Your task to perform on an android device: open app "Flipkart Online Shopping App" Image 0: 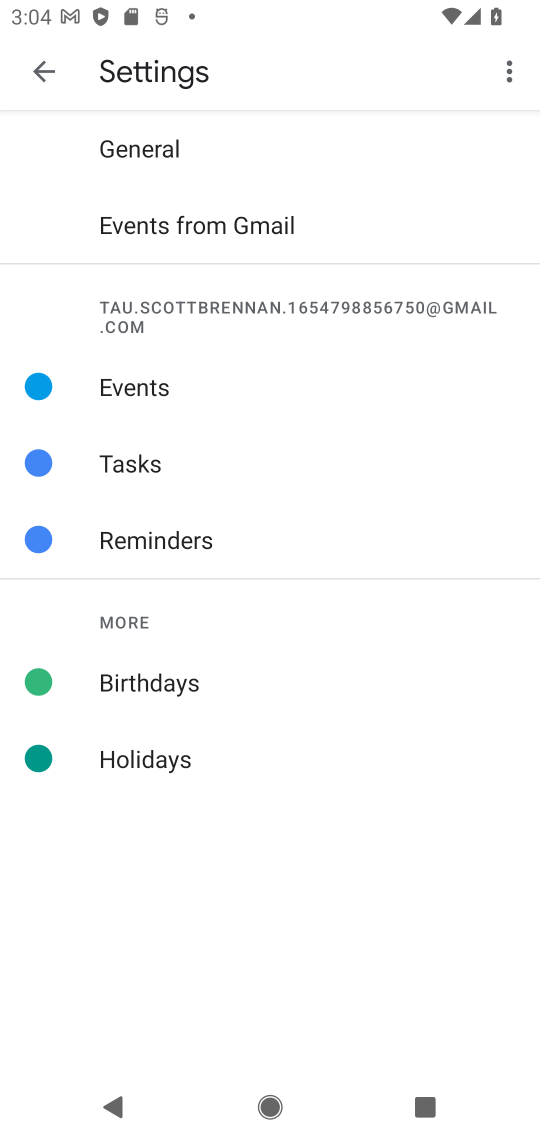
Step 0: press home button
Your task to perform on an android device: open app "Flipkart Online Shopping App" Image 1: 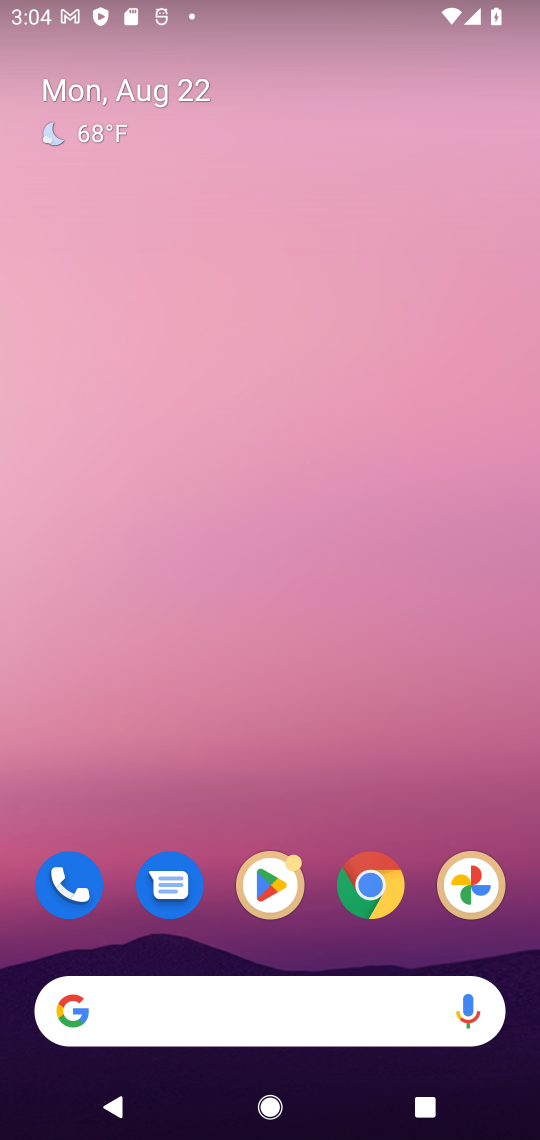
Step 1: click (265, 881)
Your task to perform on an android device: open app "Flipkart Online Shopping App" Image 2: 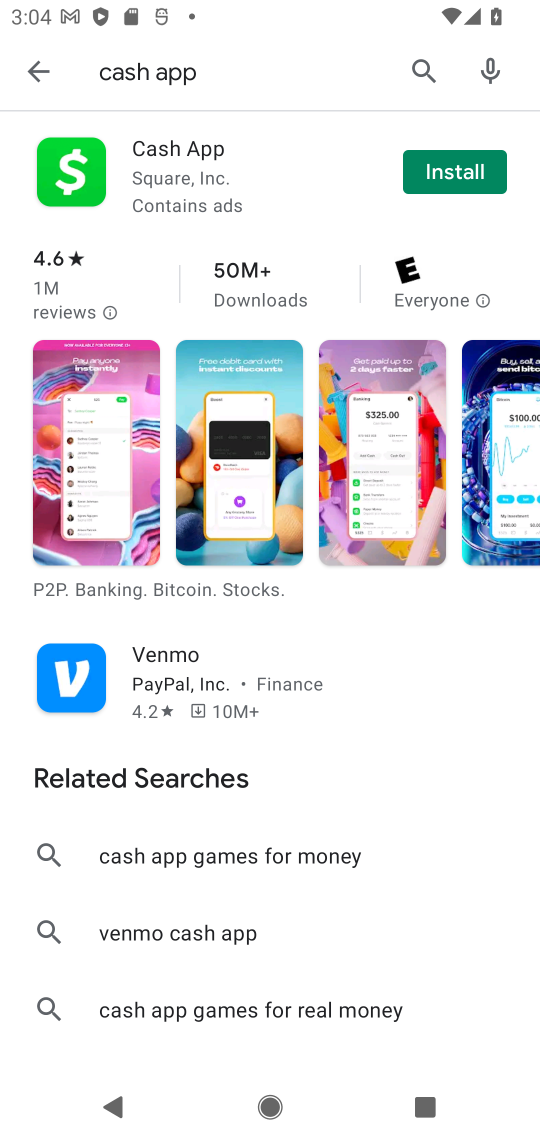
Step 2: click (418, 76)
Your task to perform on an android device: open app "Flipkart Online Shopping App" Image 3: 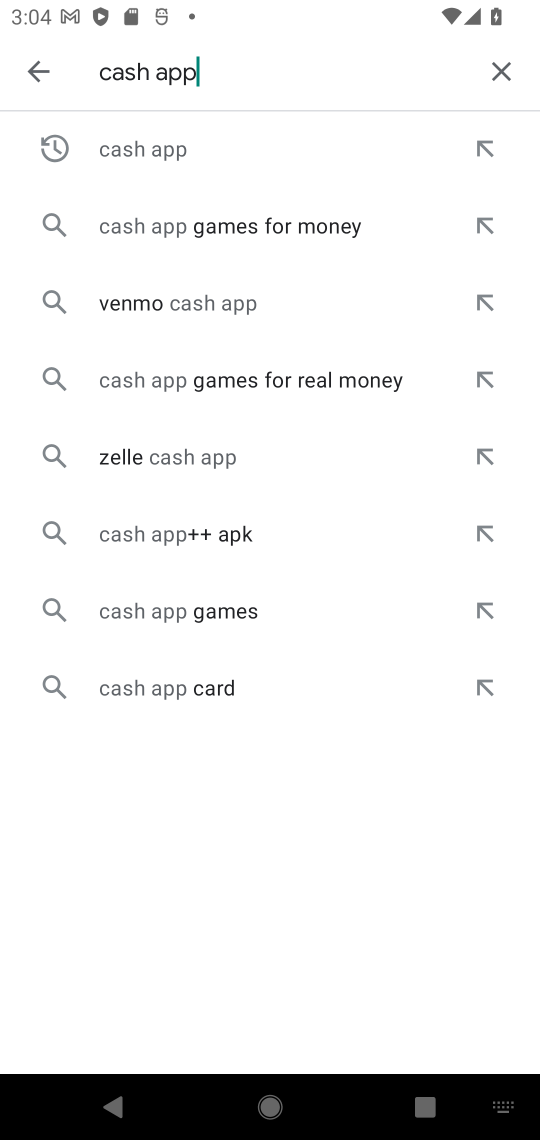
Step 3: click (505, 72)
Your task to perform on an android device: open app "Flipkart Online Shopping App" Image 4: 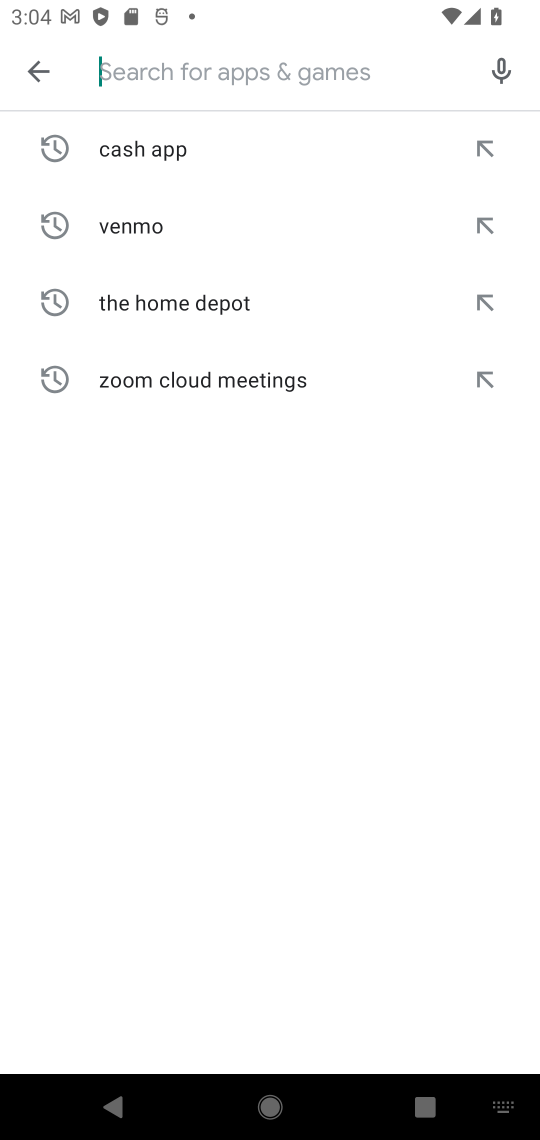
Step 4: type "Flipkart Online Shopping App"
Your task to perform on an android device: open app "Flipkart Online Shopping App" Image 5: 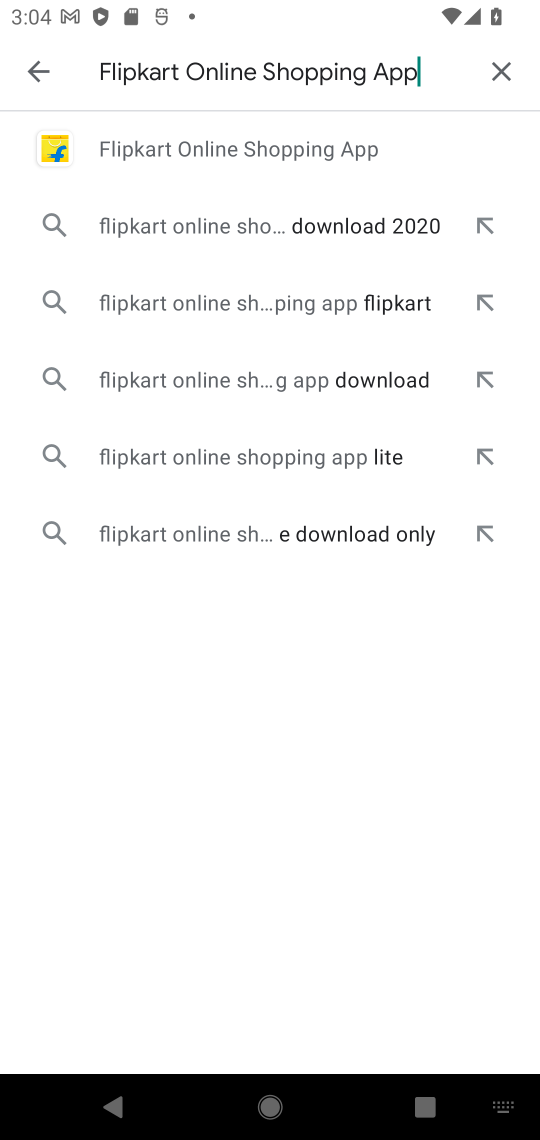
Step 5: click (152, 149)
Your task to perform on an android device: open app "Flipkart Online Shopping App" Image 6: 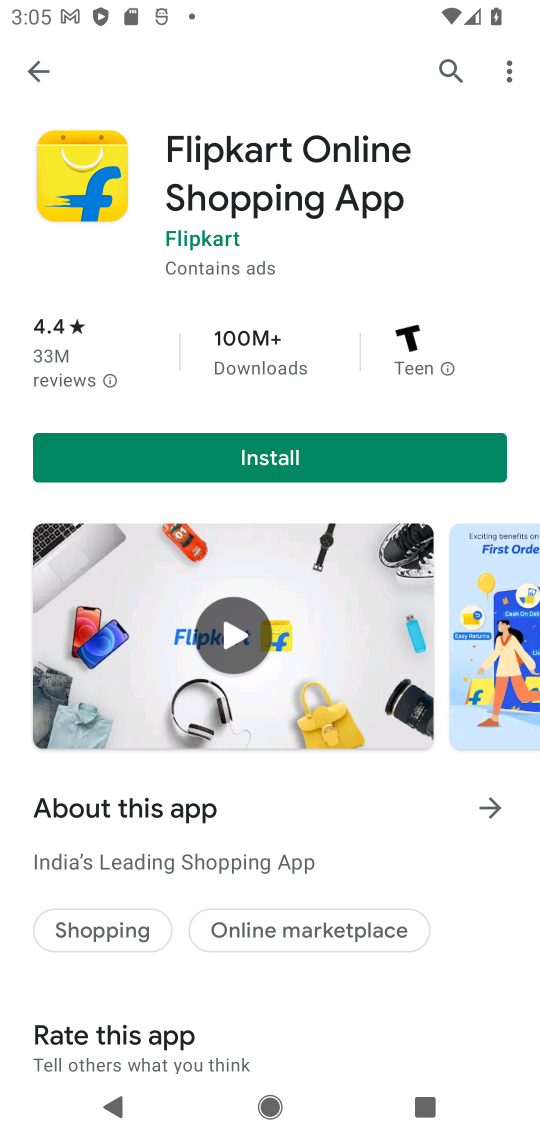
Step 6: task complete